Your task to perform on an android device: Go to accessibility settings Image 0: 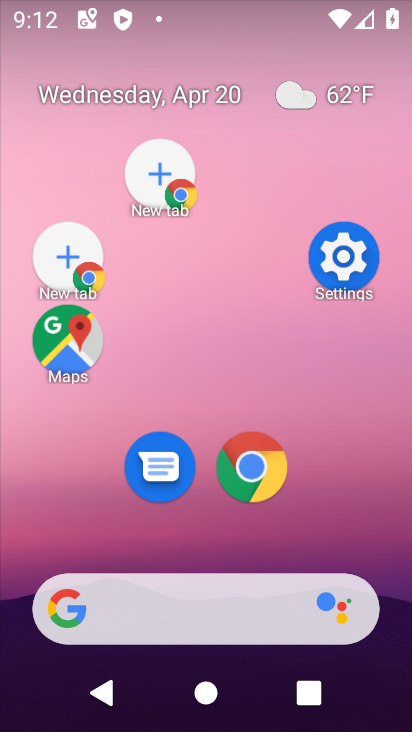
Step 0: drag from (217, 476) to (189, 294)
Your task to perform on an android device: Go to accessibility settings Image 1: 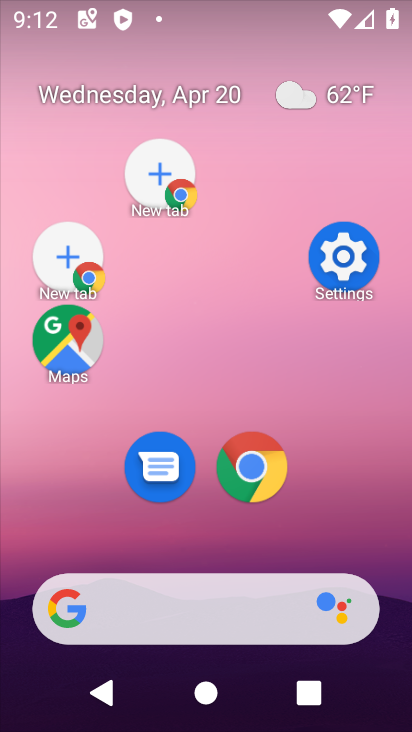
Step 1: drag from (293, 480) to (139, 75)
Your task to perform on an android device: Go to accessibility settings Image 2: 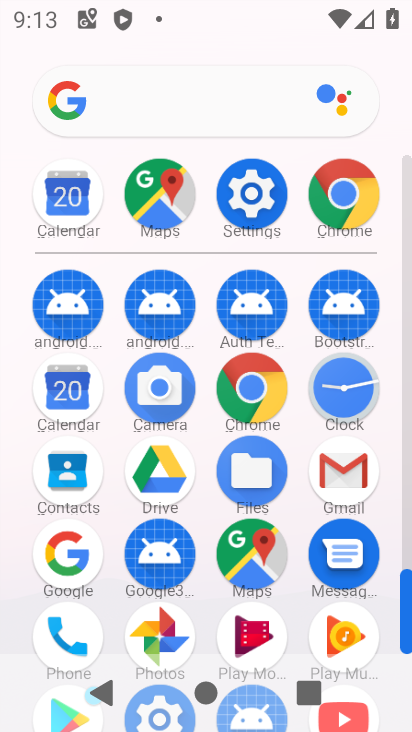
Step 2: click (249, 203)
Your task to perform on an android device: Go to accessibility settings Image 3: 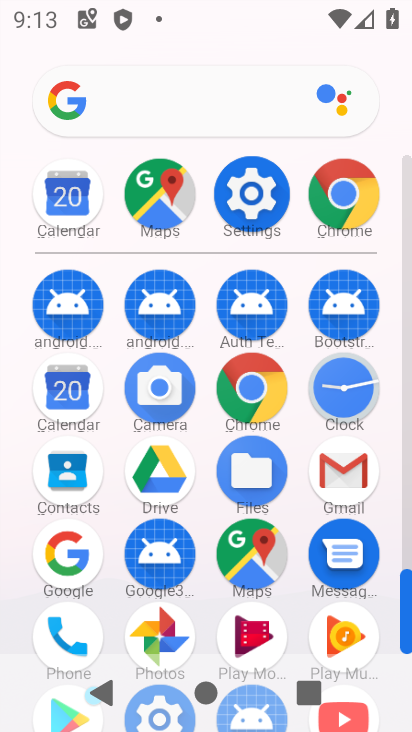
Step 3: click (249, 203)
Your task to perform on an android device: Go to accessibility settings Image 4: 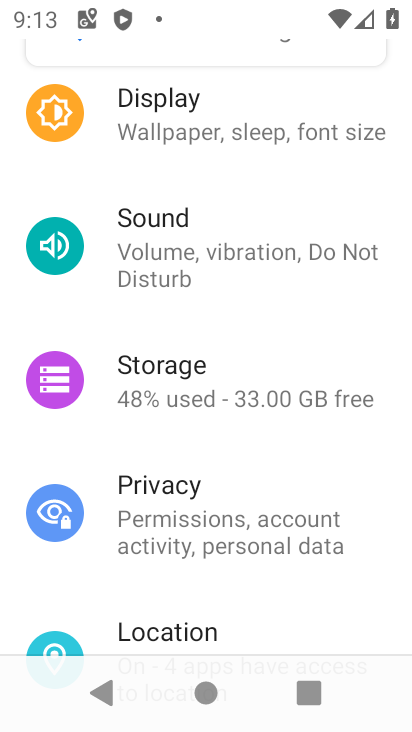
Step 4: drag from (261, 536) to (206, 333)
Your task to perform on an android device: Go to accessibility settings Image 5: 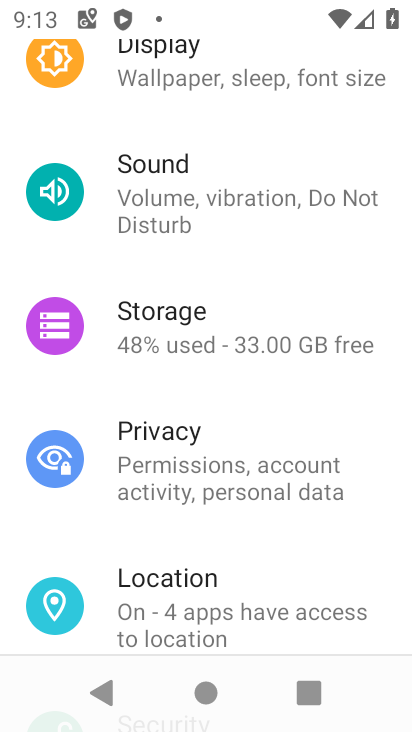
Step 5: drag from (245, 442) to (107, 192)
Your task to perform on an android device: Go to accessibility settings Image 6: 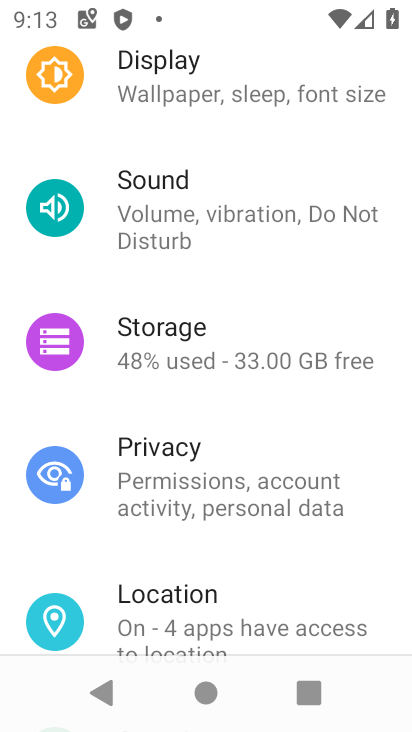
Step 6: drag from (189, 426) to (200, 127)
Your task to perform on an android device: Go to accessibility settings Image 7: 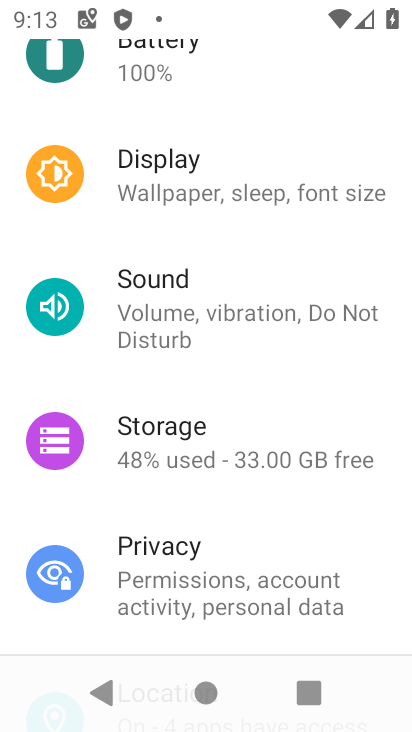
Step 7: drag from (195, 513) to (240, 163)
Your task to perform on an android device: Go to accessibility settings Image 8: 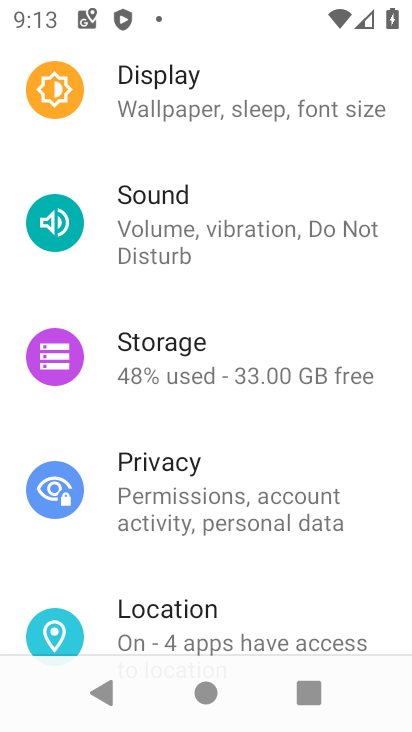
Step 8: drag from (215, 500) to (197, 105)
Your task to perform on an android device: Go to accessibility settings Image 9: 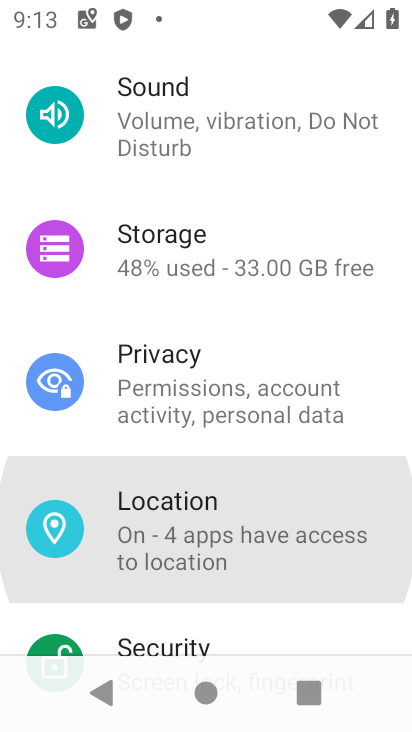
Step 9: drag from (204, 463) to (198, 191)
Your task to perform on an android device: Go to accessibility settings Image 10: 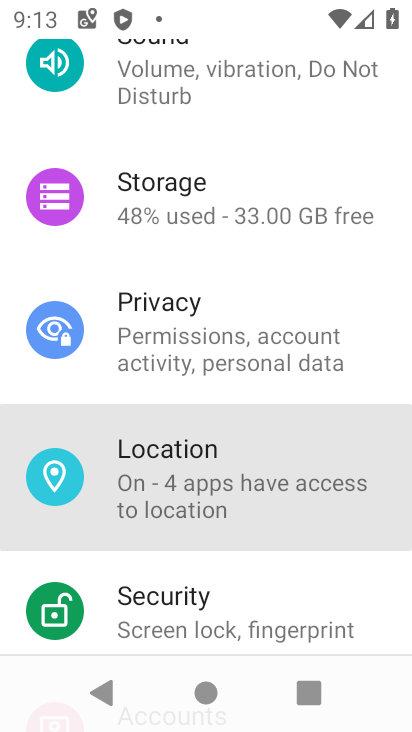
Step 10: drag from (254, 473) to (250, 243)
Your task to perform on an android device: Go to accessibility settings Image 11: 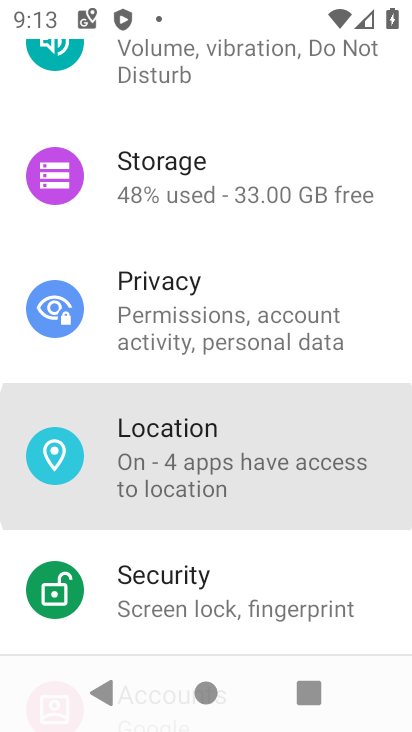
Step 11: drag from (192, 542) to (147, 179)
Your task to perform on an android device: Go to accessibility settings Image 12: 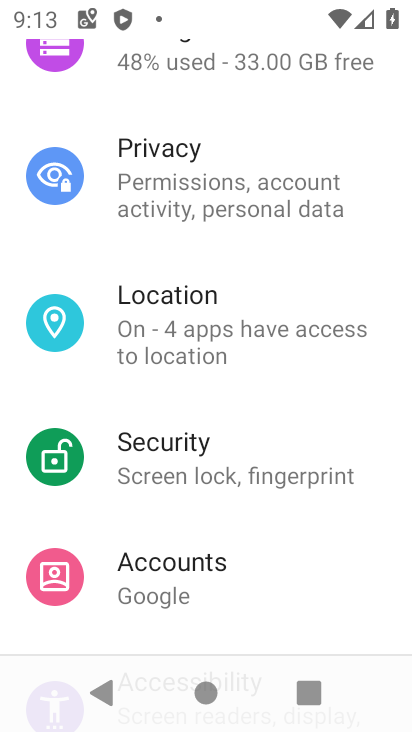
Step 12: drag from (203, 267) to (195, 211)
Your task to perform on an android device: Go to accessibility settings Image 13: 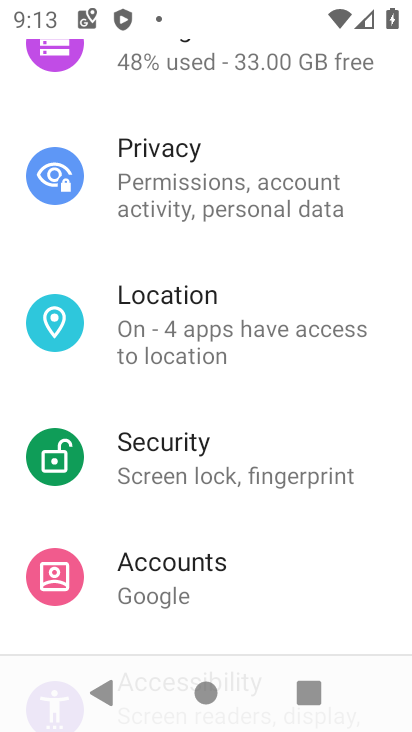
Step 13: drag from (141, 327) to (91, 43)
Your task to perform on an android device: Go to accessibility settings Image 14: 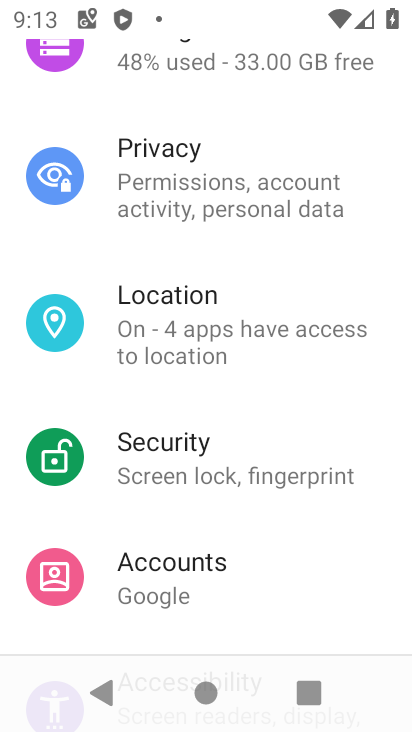
Step 14: drag from (209, 336) to (189, 194)
Your task to perform on an android device: Go to accessibility settings Image 15: 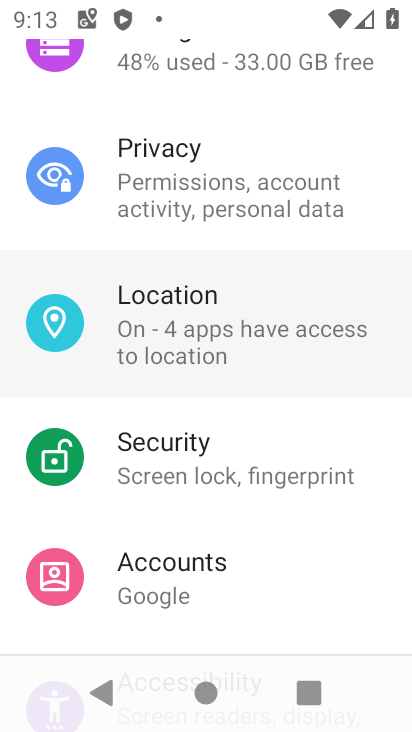
Step 15: drag from (225, 367) to (221, 96)
Your task to perform on an android device: Go to accessibility settings Image 16: 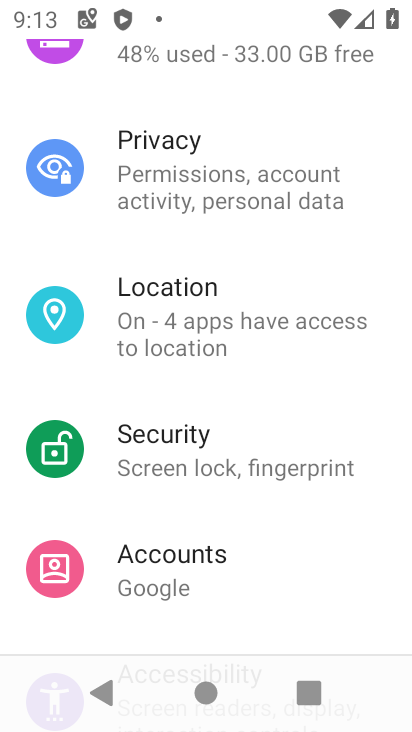
Step 16: drag from (249, 408) to (199, 124)
Your task to perform on an android device: Go to accessibility settings Image 17: 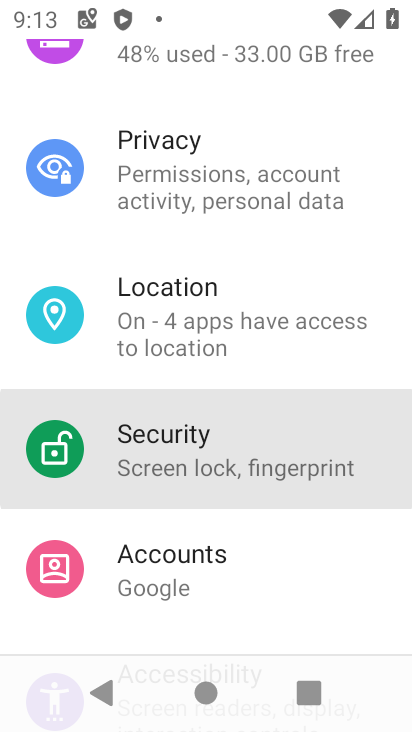
Step 17: drag from (159, 284) to (157, 191)
Your task to perform on an android device: Go to accessibility settings Image 18: 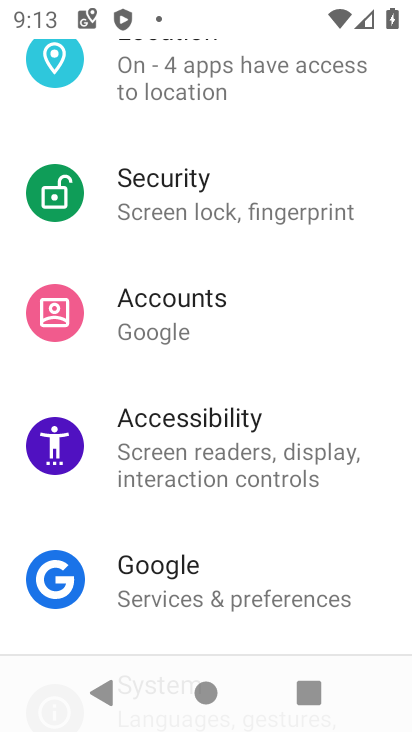
Step 18: click (170, 447)
Your task to perform on an android device: Go to accessibility settings Image 19: 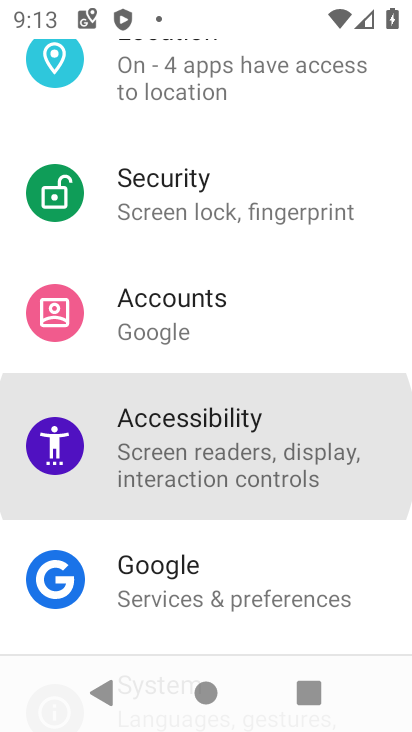
Step 19: click (177, 440)
Your task to perform on an android device: Go to accessibility settings Image 20: 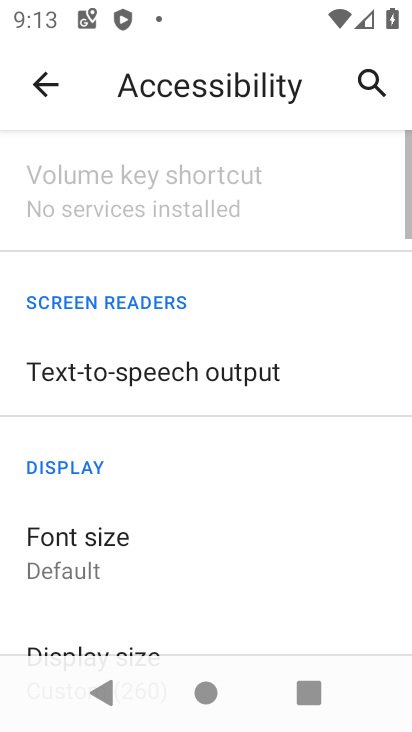
Step 20: click (163, 452)
Your task to perform on an android device: Go to accessibility settings Image 21: 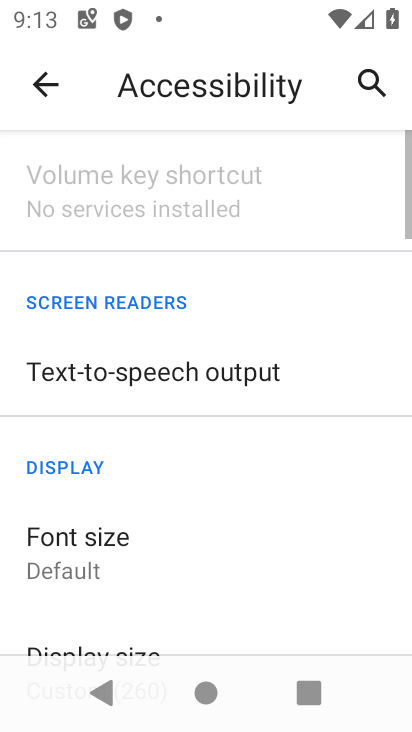
Step 21: task complete